Your task to perform on an android device: turn off improve location accuracy Image 0: 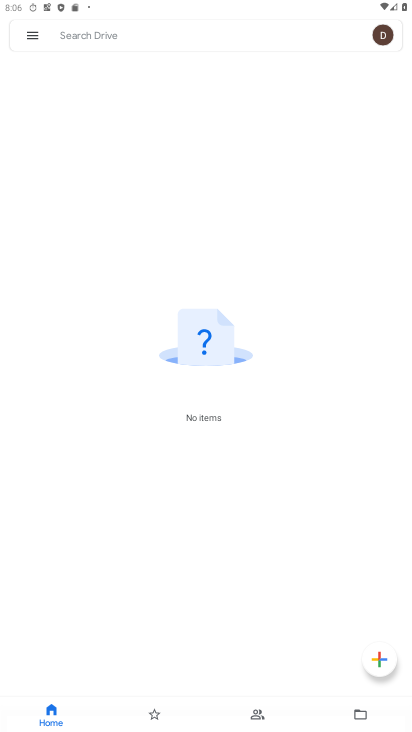
Step 0: press home button
Your task to perform on an android device: turn off improve location accuracy Image 1: 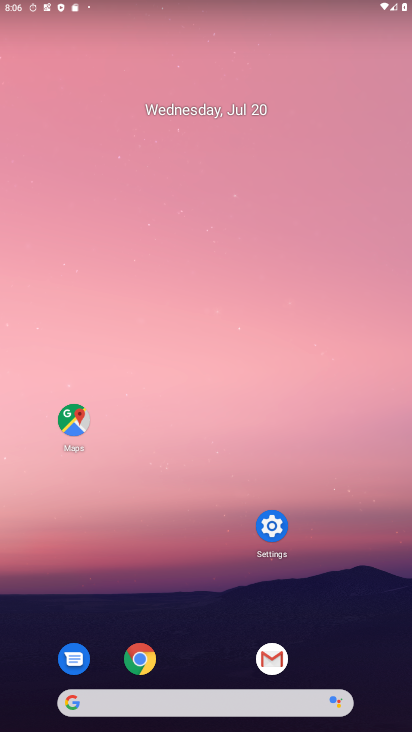
Step 1: click (259, 538)
Your task to perform on an android device: turn off improve location accuracy Image 2: 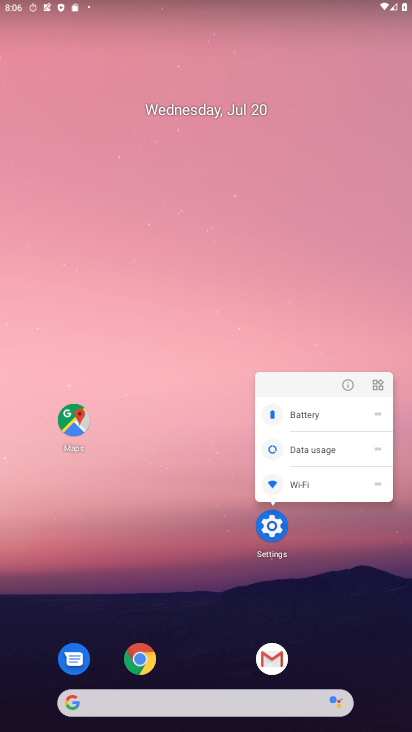
Step 2: click (275, 530)
Your task to perform on an android device: turn off improve location accuracy Image 3: 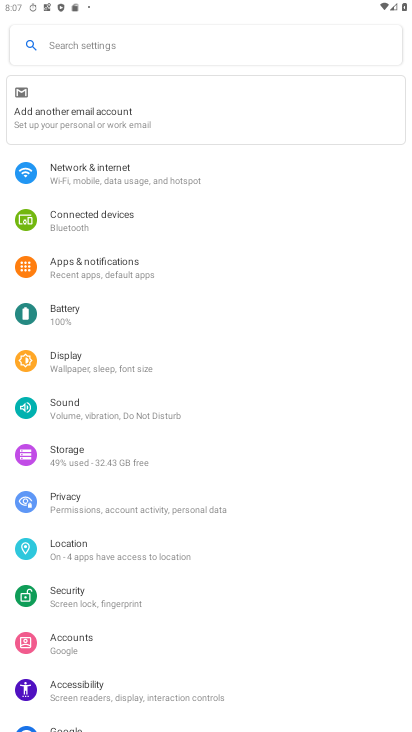
Step 3: click (81, 547)
Your task to perform on an android device: turn off improve location accuracy Image 4: 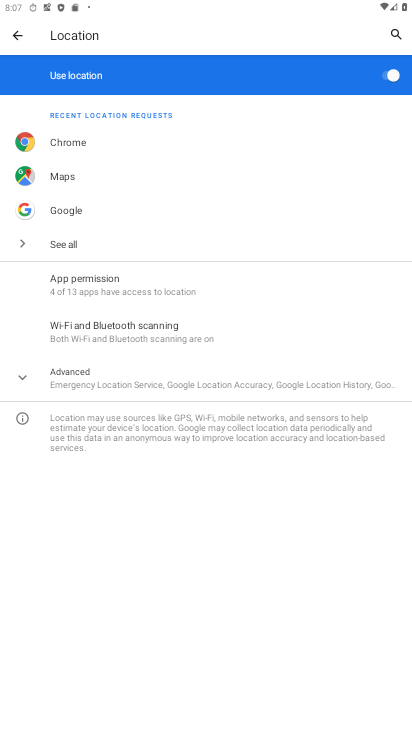
Step 4: click (39, 372)
Your task to perform on an android device: turn off improve location accuracy Image 5: 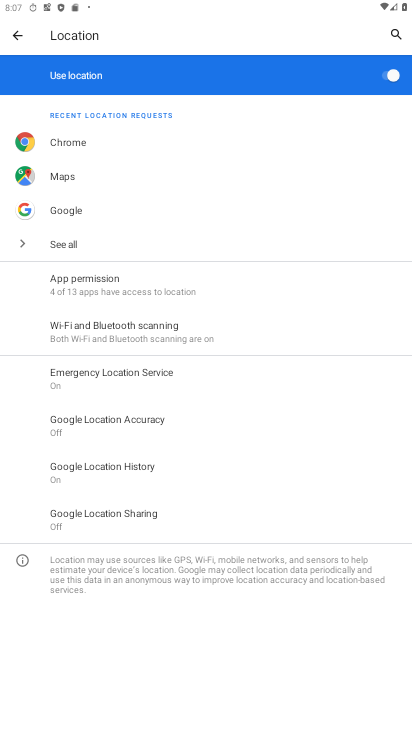
Step 5: click (152, 423)
Your task to perform on an android device: turn off improve location accuracy Image 6: 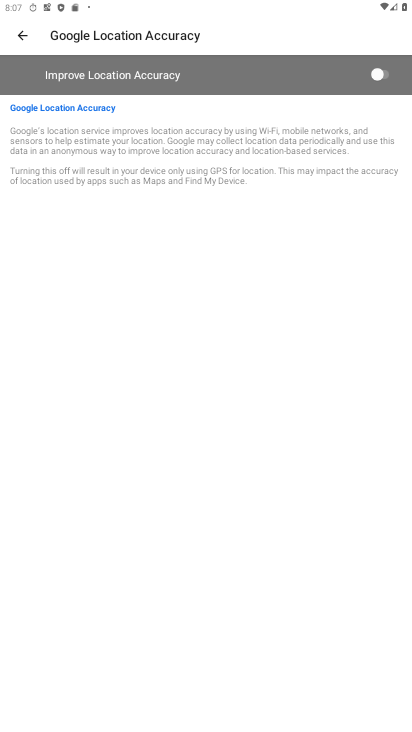
Step 6: task complete